Your task to perform on an android device: Is it going to rain today? Image 0: 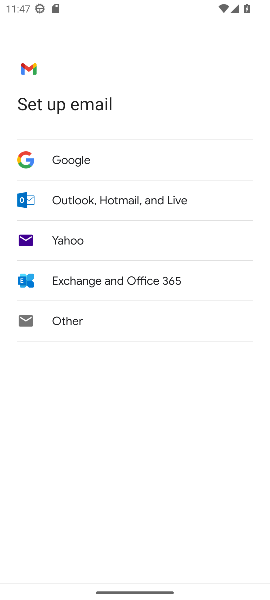
Step 0: press home button
Your task to perform on an android device: Is it going to rain today? Image 1: 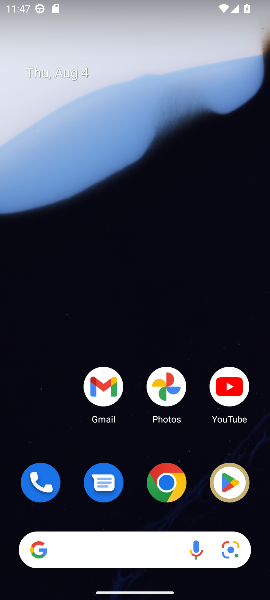
Step 1: drag from (143, 460) to (143, 208)
Your task to perform on an android device: Is it going to rain today? Image 2: 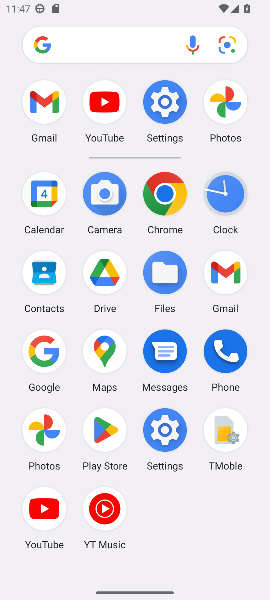
Step 2: click (52, 349)
Your task to perform on an android device: Is it going to rain today? Image 3: 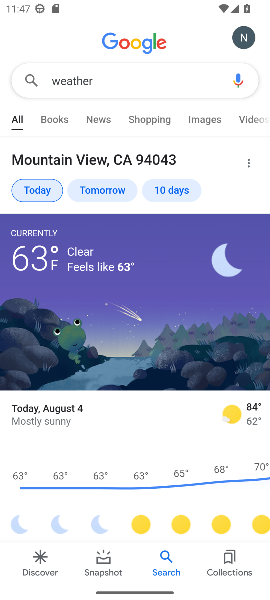
Step 3: click (143, 84)
Your task to perform on an android device: Is it going to rain today? Image 4: 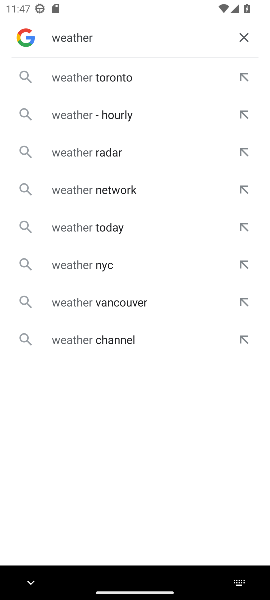
Step 4: click (134, 84)
Your task to perform on an android device: Is it going to rain today? Image 5: 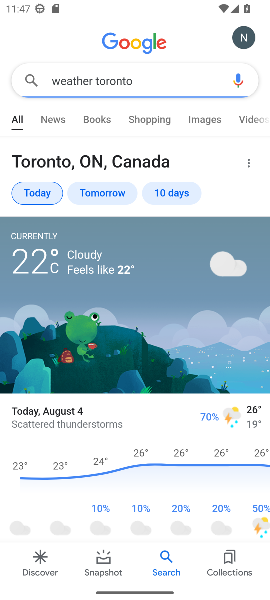
Step 5: task complete